Your task to perform on an android device: turn vacation reply on in the gmail app Image 0: 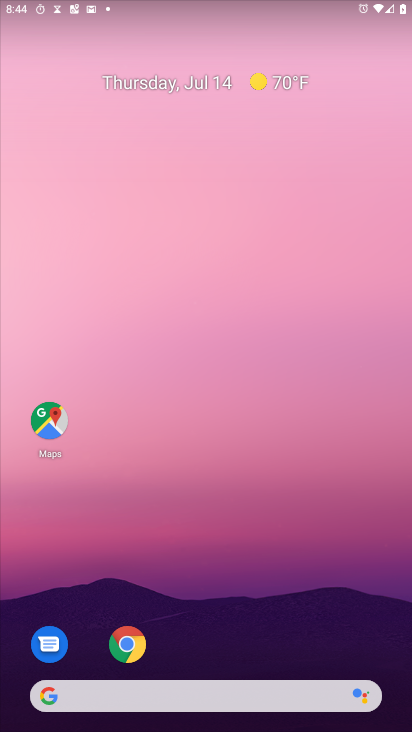
Step 0: drag from (205, 628) to (282, 212)
Your task to perform on an android device: turn vacation reply on in the gmail app Image 1: 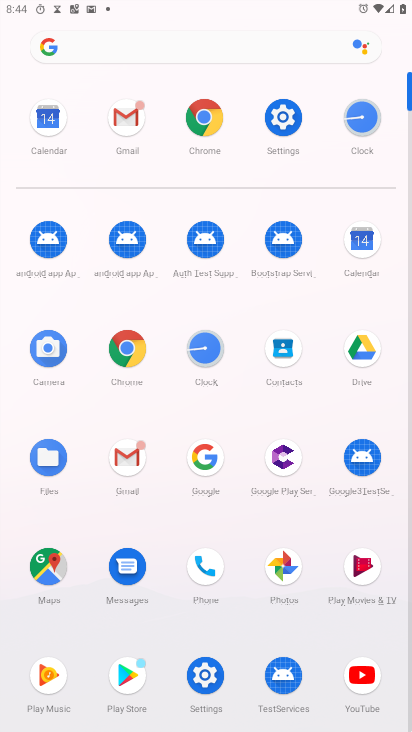
Step 1: click (133, 121)
Your task to perform on an android device: turn vacation reply on in the gmail app Image 2: 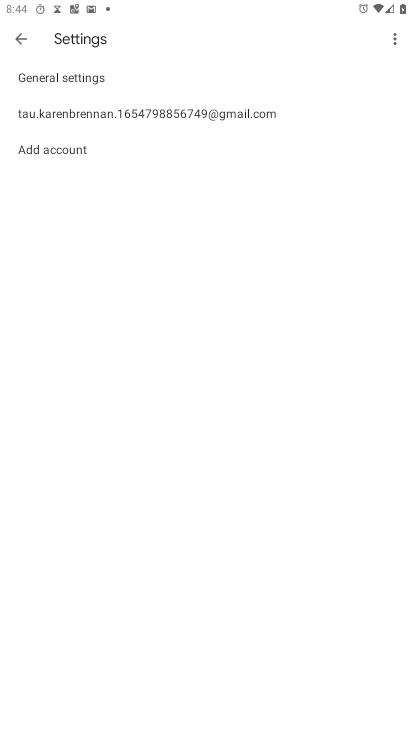
Step 2: click (137, 115)
Your task to perform on an android device: turn vacation reply on in the gmail app Image 3: 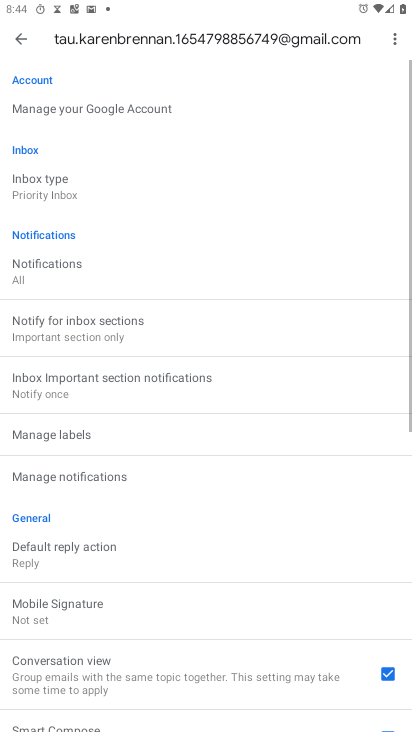
Step 3: drag from (147, 602) to (281, 38)
Your task to perform on an android device: turn vacation reply on in the gmail app Image 4: 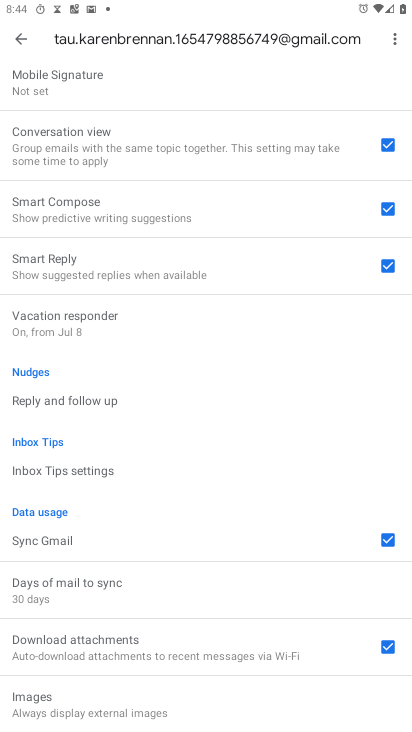
Step 4: click (87, 323)
Your task to perform on an android device: turn vacation reply on in the gmail app Image 5: 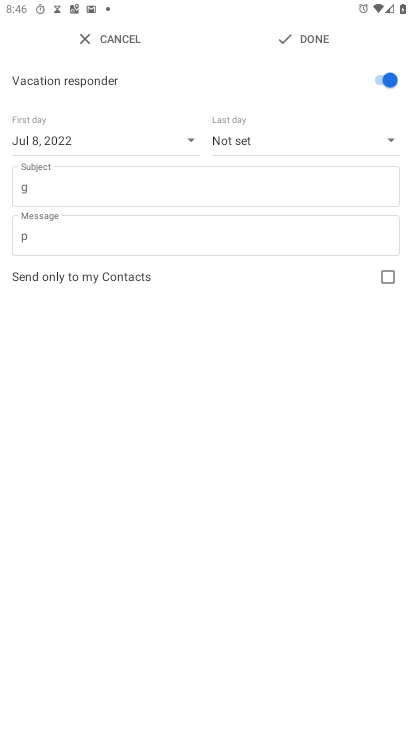
Step 5: task complete